Your task to perform on an android device: Go to Reddit.com Image 0: 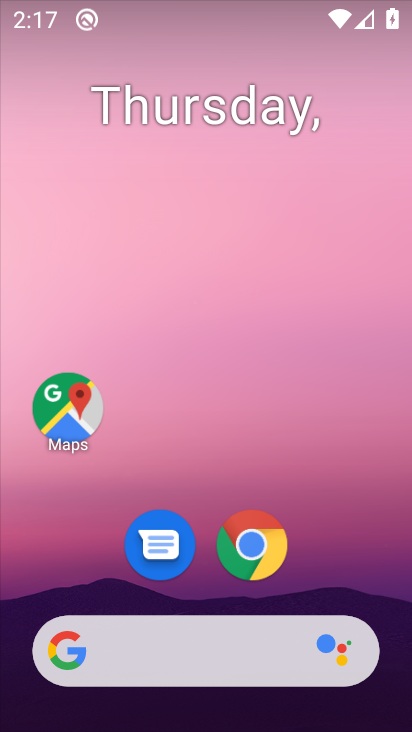
Step 0: drag from (229, 614) to (324, 97)
Your task to perform on an android device: Go to Reddit.com Image 1: 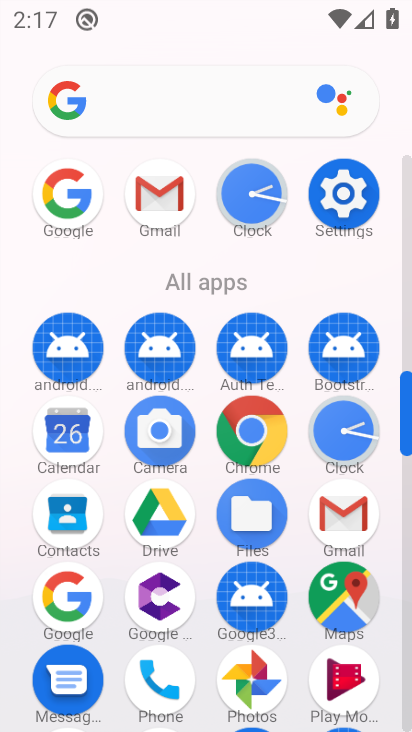
Step 1: click (87, 610)
Your task to perform on an android device: Go to Reddit.com Image 2: 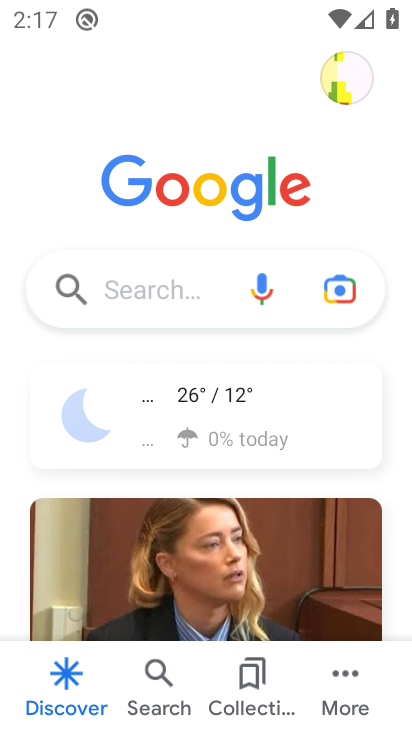
Step 2: click (194, 282)
Your task to perform on an android device: Go to Reddit.com Image 3: 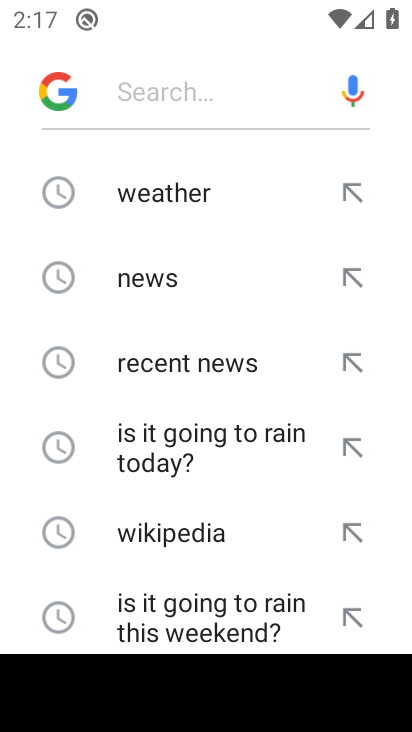
Step 3: drag from (176, 552) to (254, 131)
Your task to perform on an android device: Go to Reddit.com Image 4: 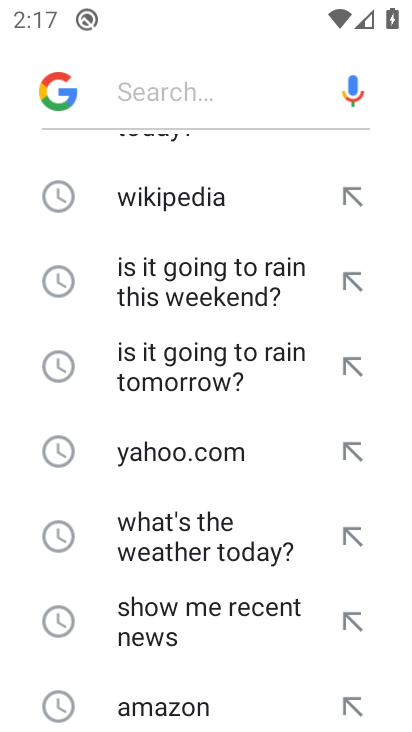
Step 4: drag from (179, 687) to (266, 312)
Your task to perform on an android device: Go to Reddit.com Image 5: 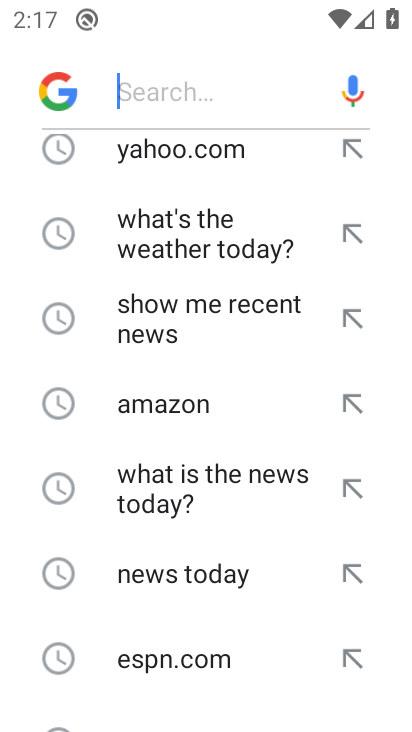
Step 5: drag from (194, 697) to (267, 262)
Your task to perform on an android device: Go to Reddit.com Image 6: 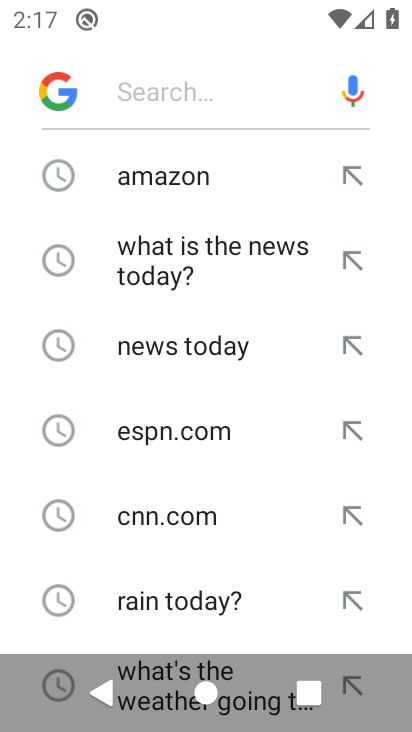
Step 6: drag from (182, 631) to (256, 172)
Your task to perform on an android device: Go to Reddit.com Image 7: 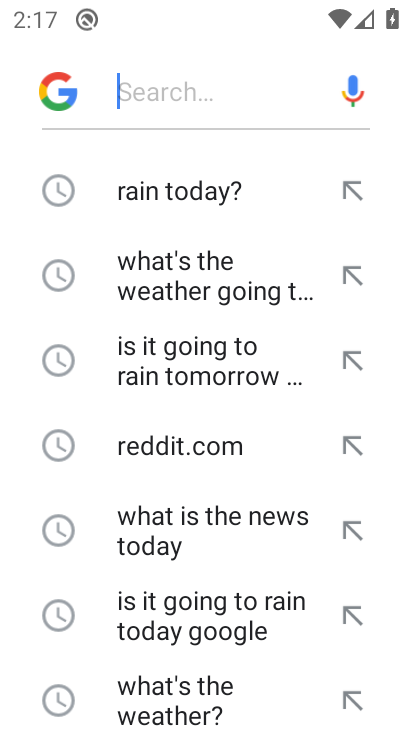
Step 7: click (181, 440)
Your task to perform on an android device: Go to Reddit.com Image 8: 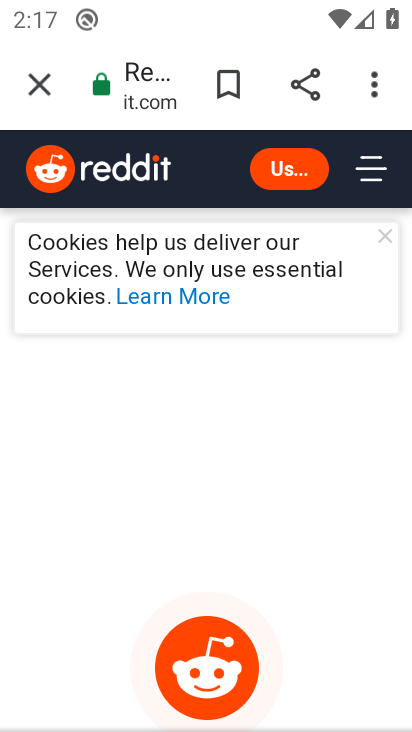
Step 8: task complete